Your task to perform on an android device: What's the weather? Image 0: 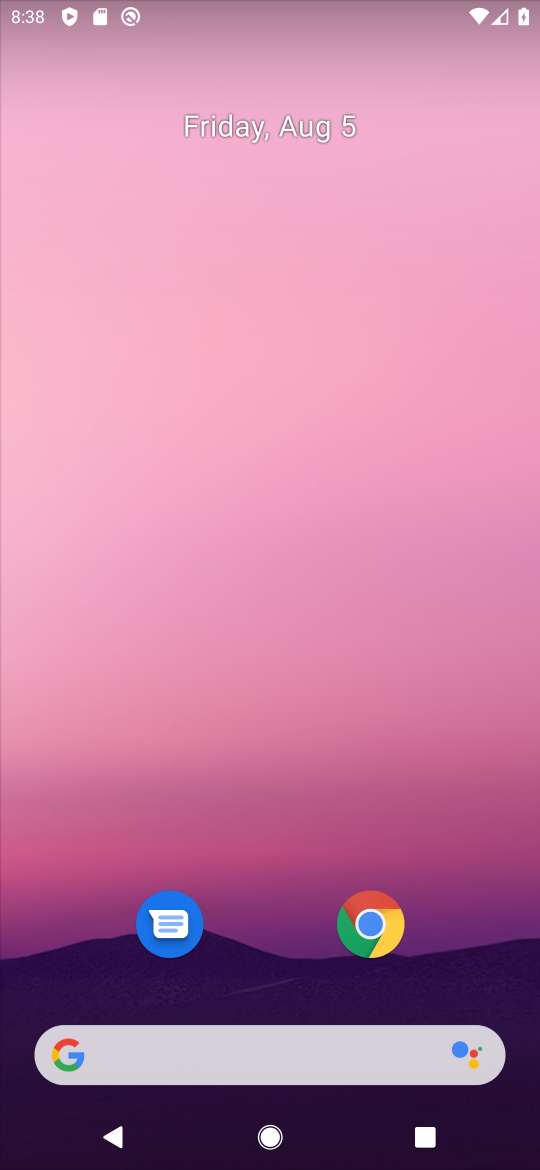
Step 0: click (280, 1054)
Your task to perform on an android device: What's the weather? Image 1: 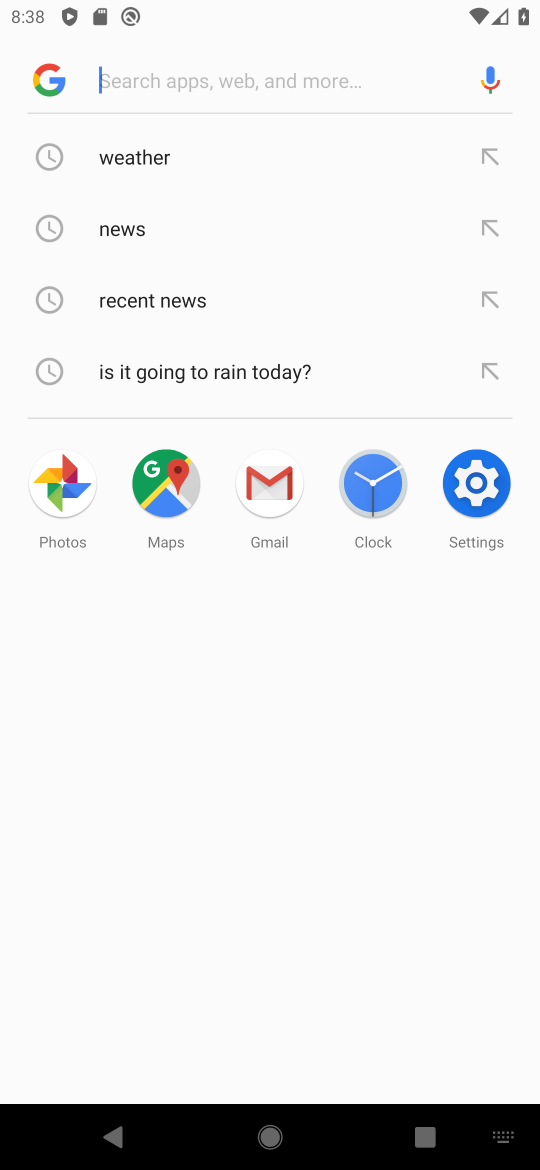
Step 1: type "What's the weather?"
Your task to perform on an android device: What's the weather? Image 2: 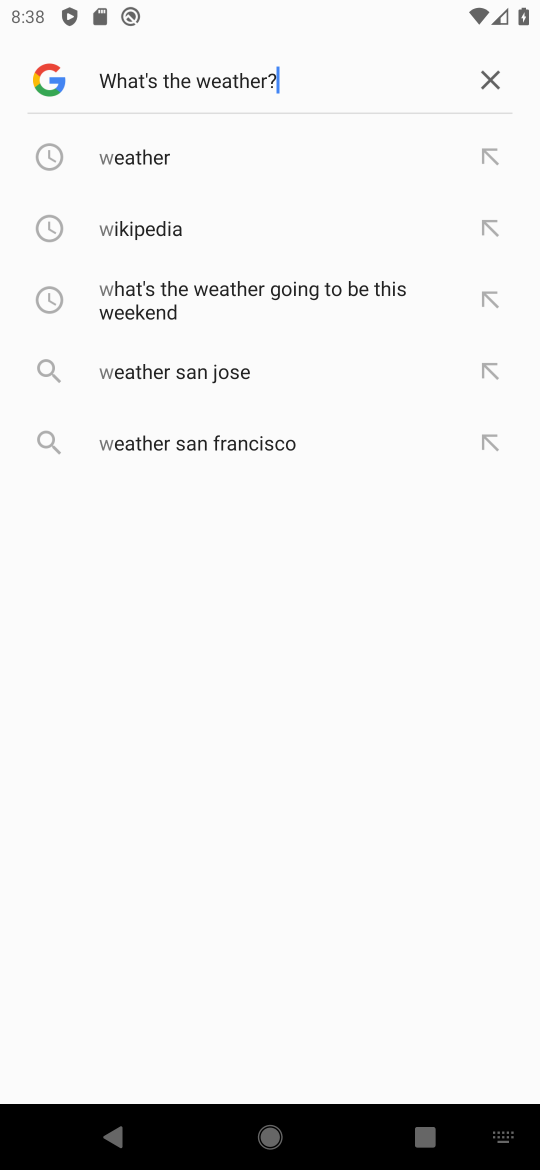
Step 2: press enter
Your task to perform on an android device: What's the weather? Image 3: 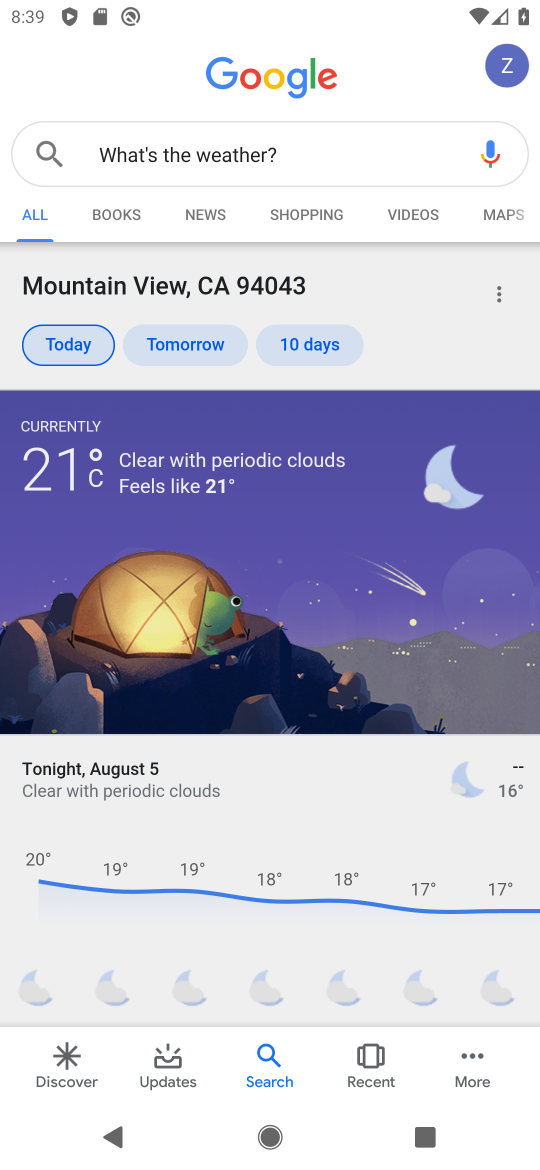
Step 3: task complete